Your task to perform on an android device: Go to privacy settings Image 0: 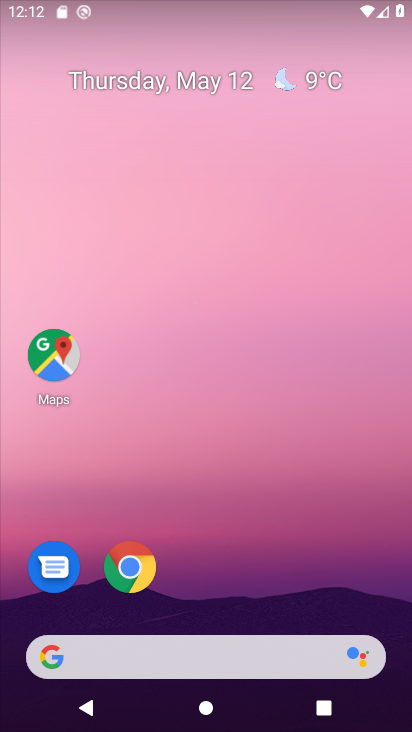
Step 0: drag from (244, 555) to (279, 230)
Your task to perform on an android device: Go to privacy settings Image 1: 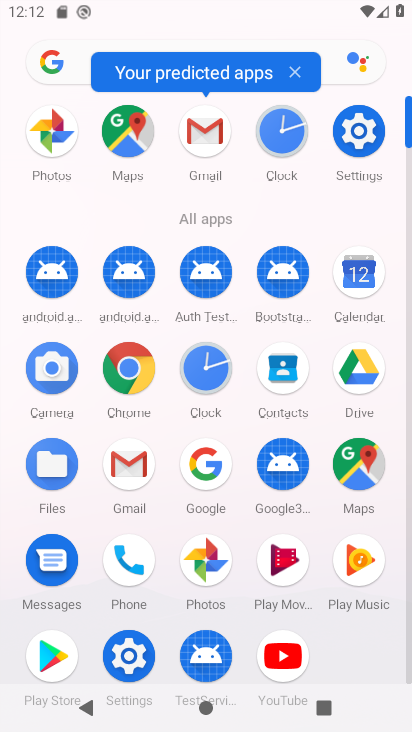
Step 1: click (367, 139)
Your task to perform on an android device: Go to privacy settings Image 2: 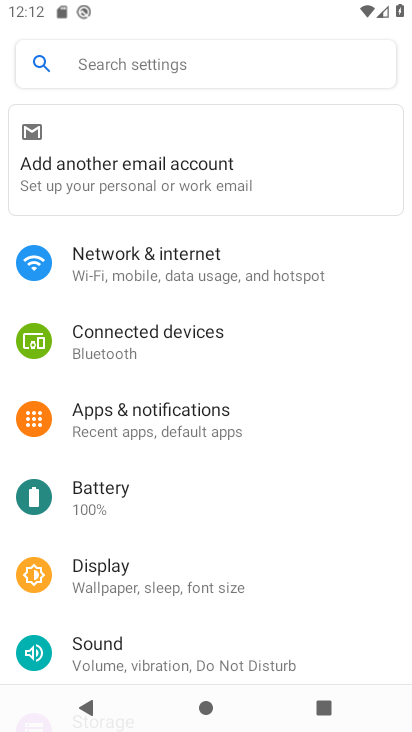
Step 2: drag from (246, 595) to (313, 185)
Your task to perform on an android device: Go to privacy settings Image 3: 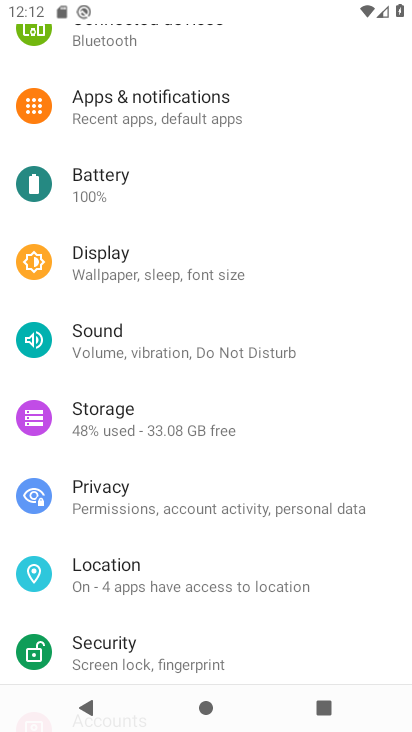
Step 3: click (236, 505)
Your task to perform on an android device: Go to privacy settings Image 4: 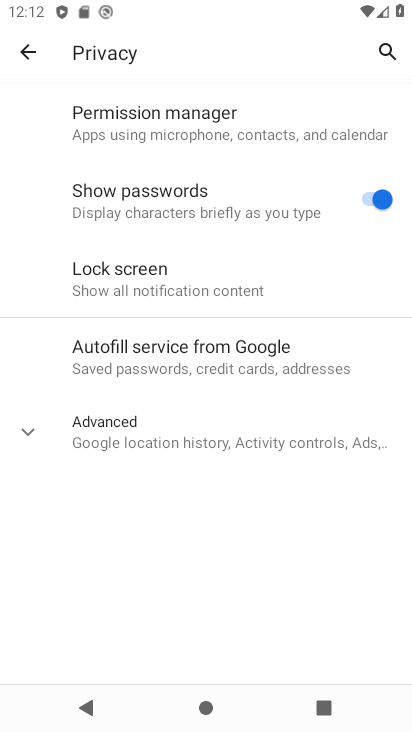
Step 4: task complete